Your task to perform on an android device: toggle show notifications on the lock screen Image 0: 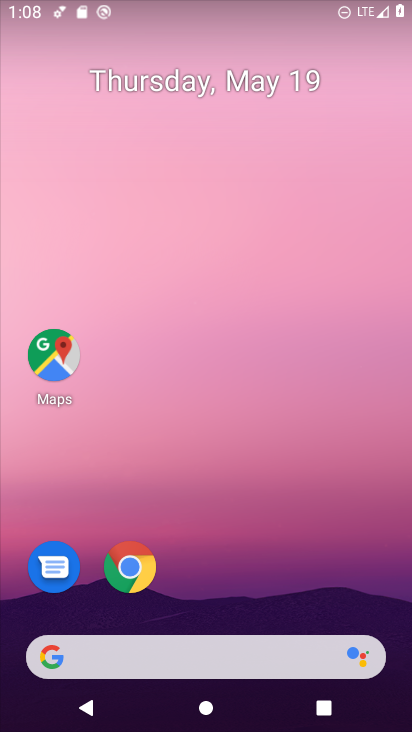
Step 0: drag from (286, 497) to (209, 75)
Your task to perform on an android device: toggle show notifications on the lock screen Image 1: 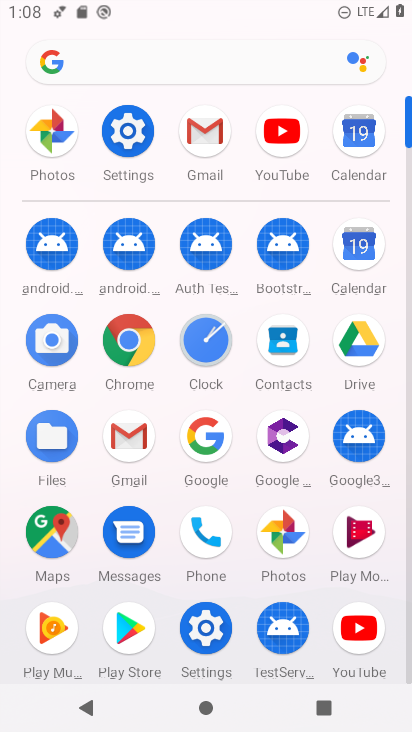
Step 1: click (141, 135)
Your task to perform on an android device: toggle show notifications on the lock screen Image 2: 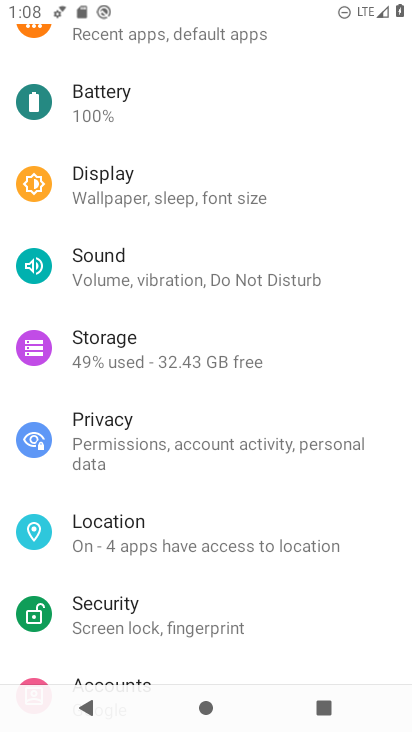
Step 2: drag from (241, 167) to (279, 602)
Your task to perform on an android device: toggle show notifications on the lock screen Image 3: 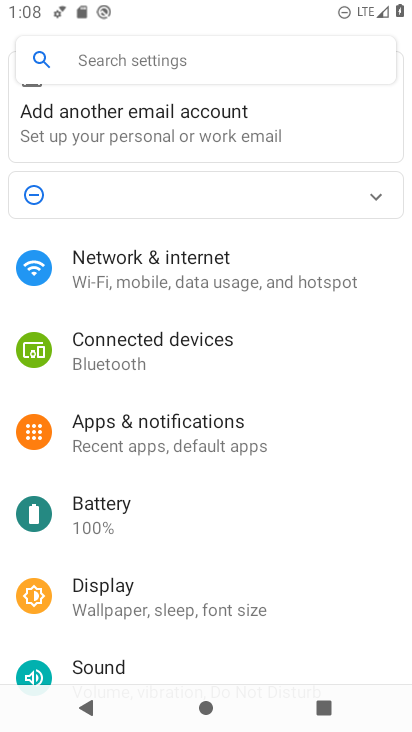
Step 3: click (182, 438)
Your task to perform on an android device: toggle show notifications on the lock screen Image 4: 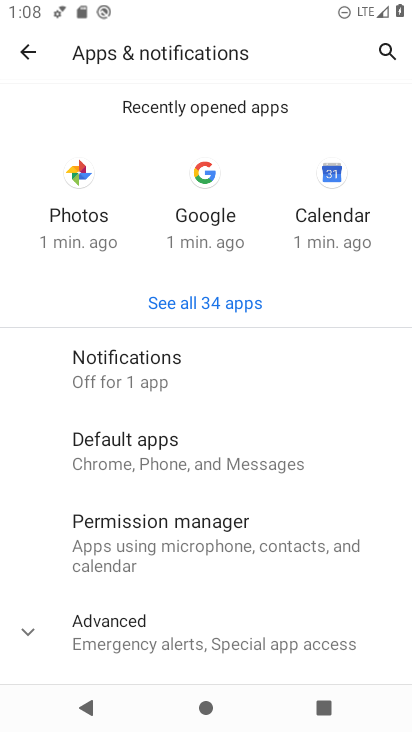
Step 4: click (196, 374)
Your task to perform on an android device: toggle show notifications on the lock screen Image 5: 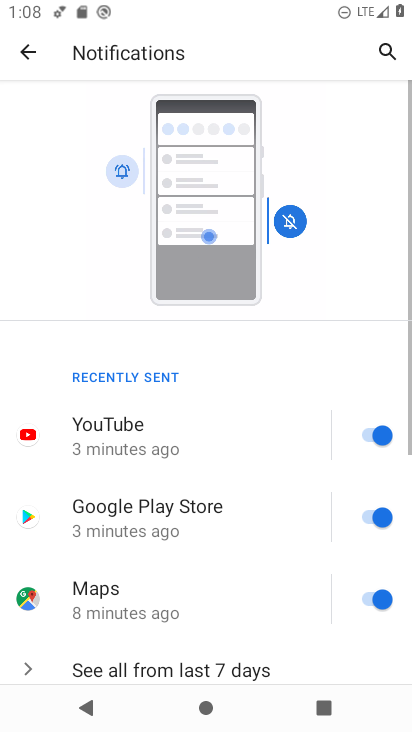
Step 5: drag from (252, 549) to (263, 145)
Your task to perform on an android device: toggle show notifications on the lock screen Image 6: 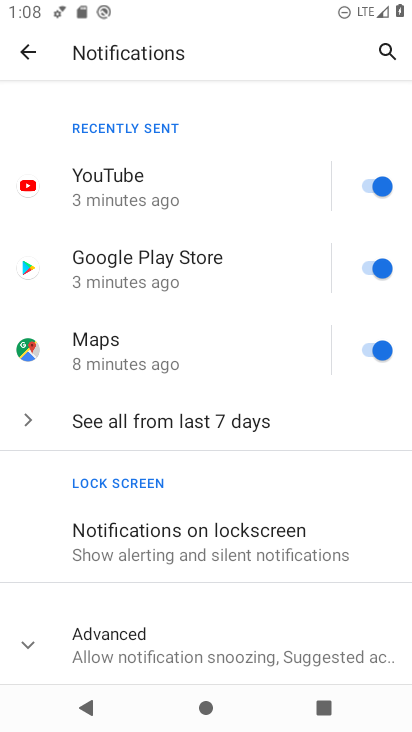
Step 6: click (207, 527)
Your task to perform on an android device: toggle show notifications on the lock screen Image 7: 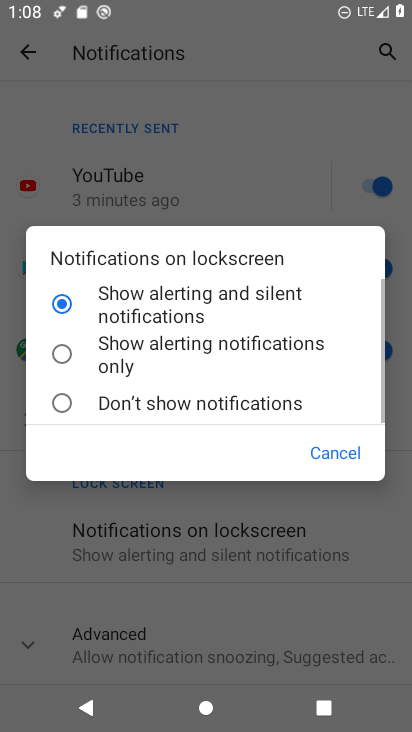
Step 7: click (63, 405)
Your task to perform on an android device: toggle show notifications on the lock screen Image 8: 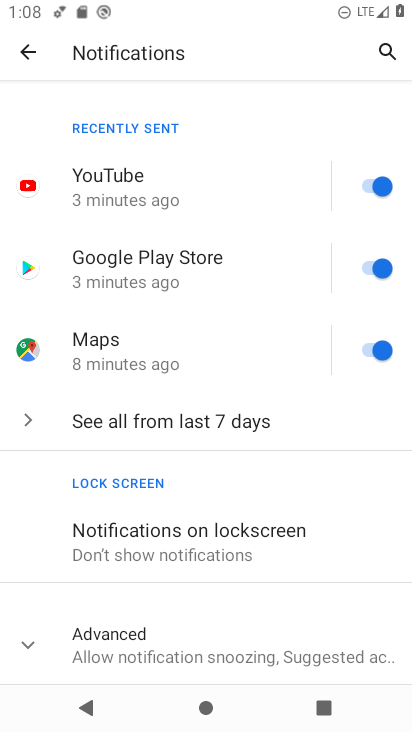
Step 8: task complete